Your task to perform on an android device: What's the weather going to be tomorrow? Image 0: 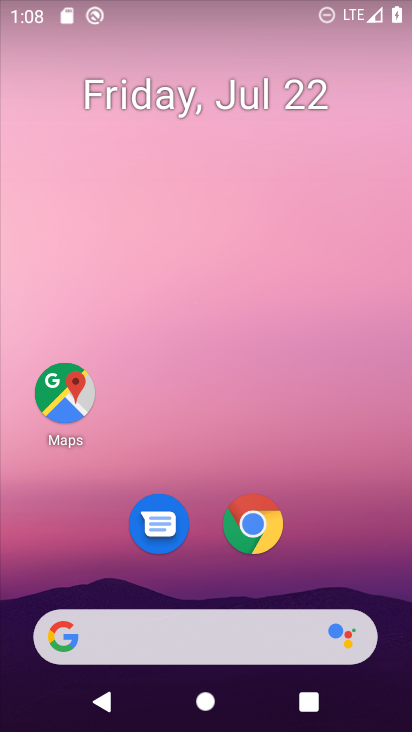
Step 0: click (233, 647)
Your task to perform on an android device: What's the weather going to be tomorrow? Image 1: 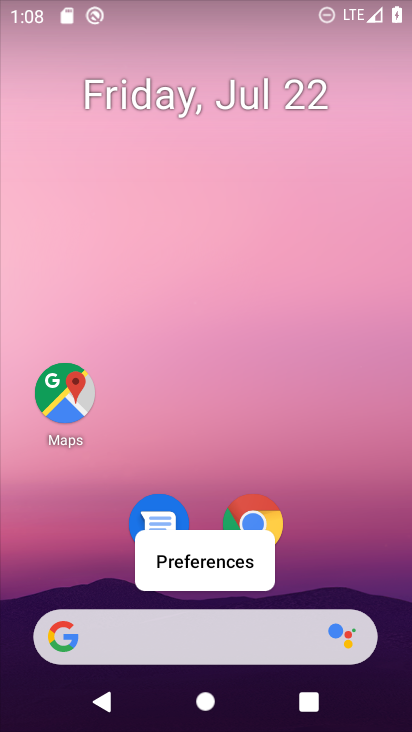
Step 1: click (170, 633)
Your task to perform on an android device: What's the weather going to be tomorrow? Image 2: 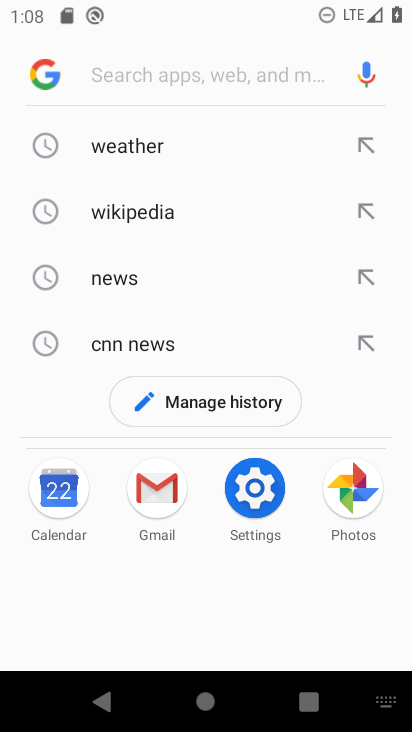
Step 2: click (142, 148)
Your task to perform on an android device: What's the weather going to be tomorrow? Image 3: 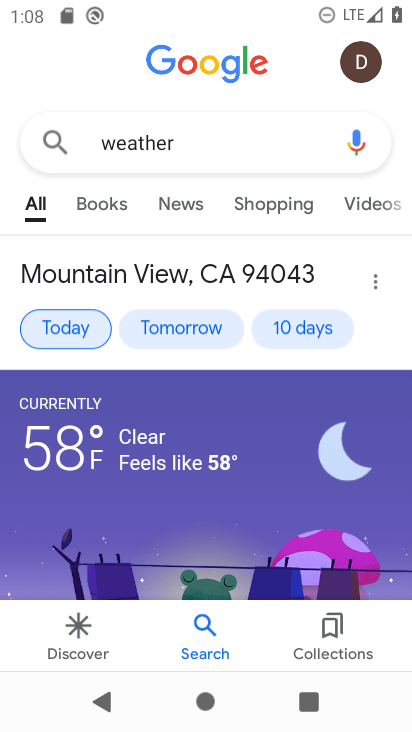
Step 3: click (198, 329)
Your task to perform on an android device: What's the weather going to be tomorrow? Image 4: 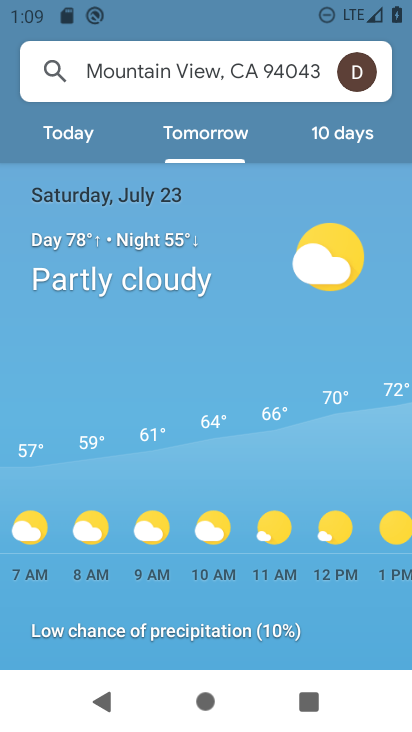
Step 4: task complete